Your task to perform on an android device: Go to Yahoo.com Image 0: 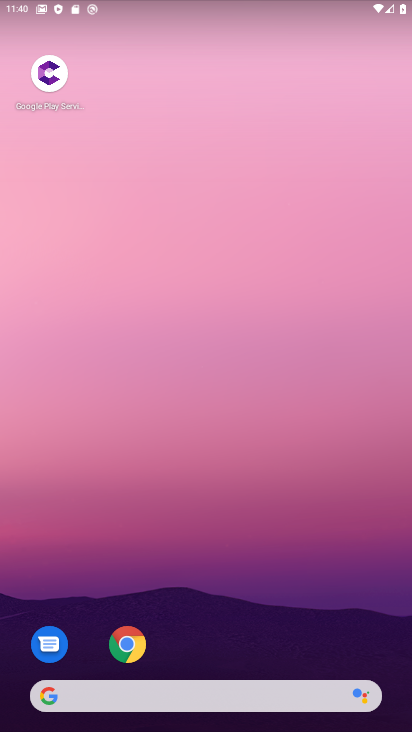
Step 0: click (117, 641)
Your task to perform on an android device: Go to Yahoo.com Image 1: 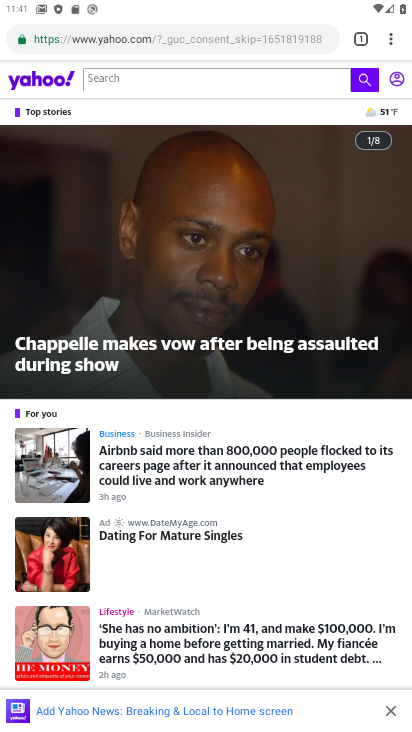
Step 1: task complete